Your task to perform on an android device: install app "Microsoft Excel" Image 0: 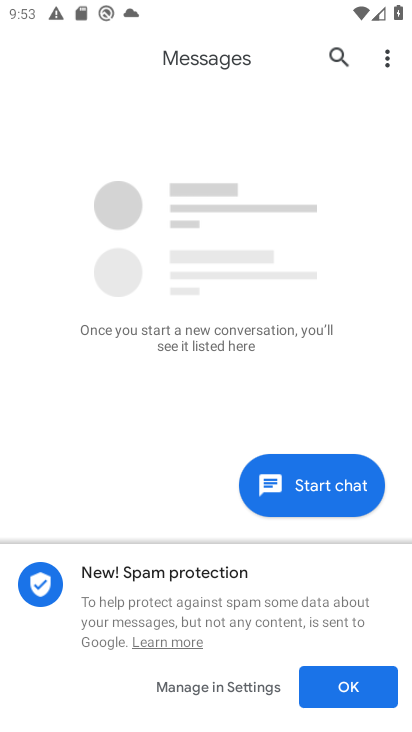
Step 0: press home button
Your task to perform on an android device: install app "Microsoft Excel" Image 1: 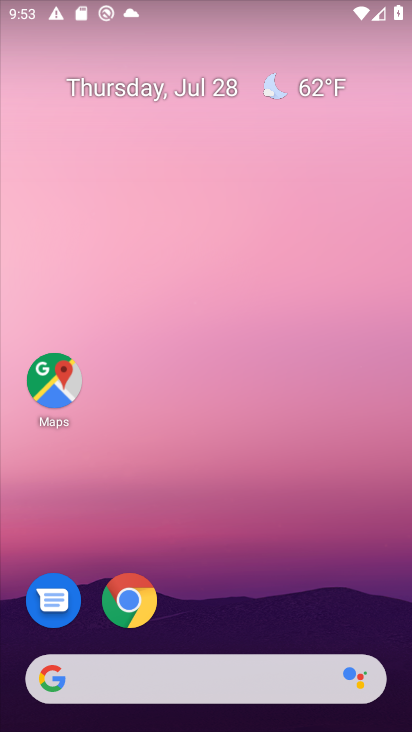
Step 1: drag from (218, 636) to (263, 11)
Your task to perform on an android device: install app "Microsoft Excel" Image 2: 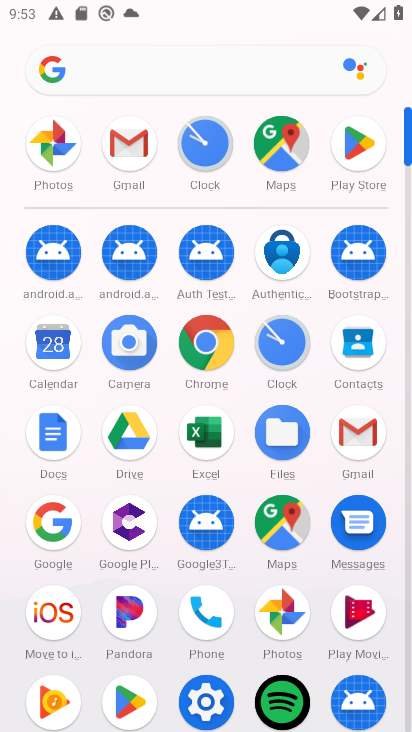
Step 2: click (353, 140)
Your task to perform on an android device: install app "Microsoft Excel" Image 3: 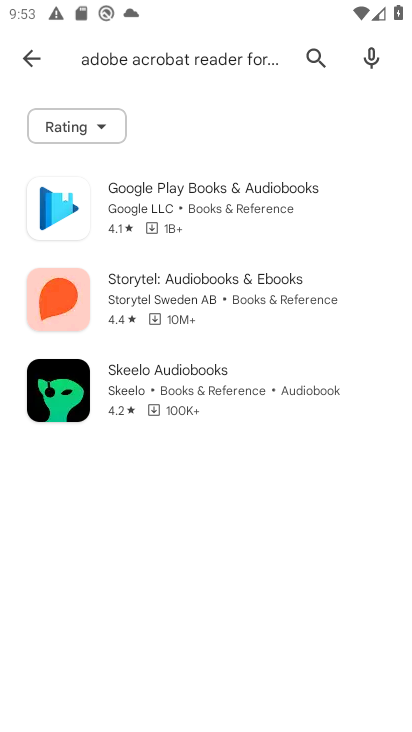
Step 3: click (324, 54)
Your task to perform on an android device: install app "Microsoft Excel" Image 4: 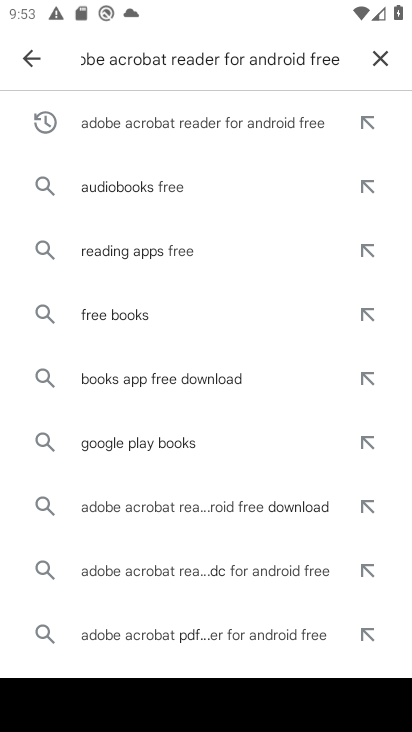
Step 4: click (378, 66)
Your task to perform on an android device: install app "Microsoft Excel" Image 5: 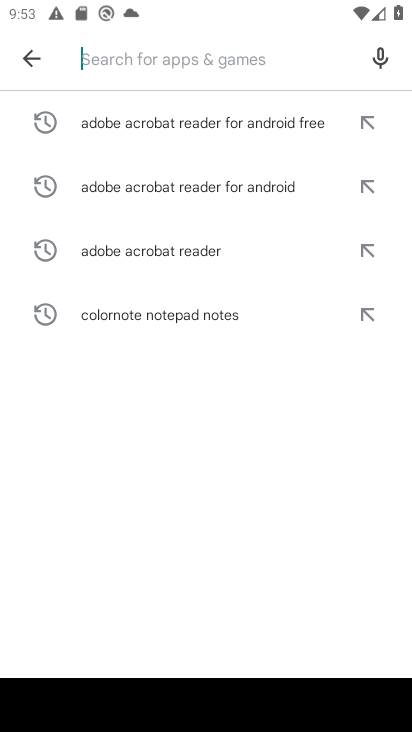
Step 5: click (287, 60)
Your task to perform on an android device: install app "Microsoft Excel" Image 6: 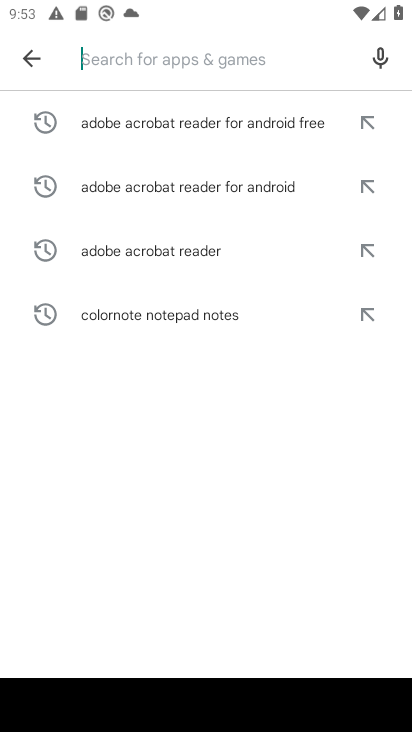
Step 6: type "Microsoft Excel"
Your task to perform on an android device: install app "Microsoft Excel" Image 7: 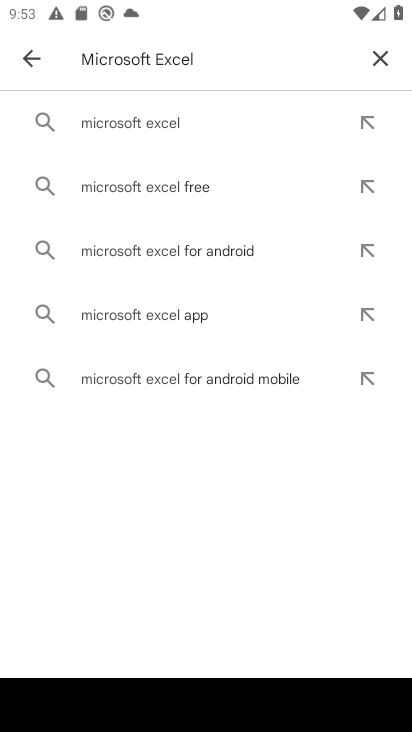
Step 7: click (151, 126)
Your task to perform on an android device: install app "Microsoft Excel" Image 8: 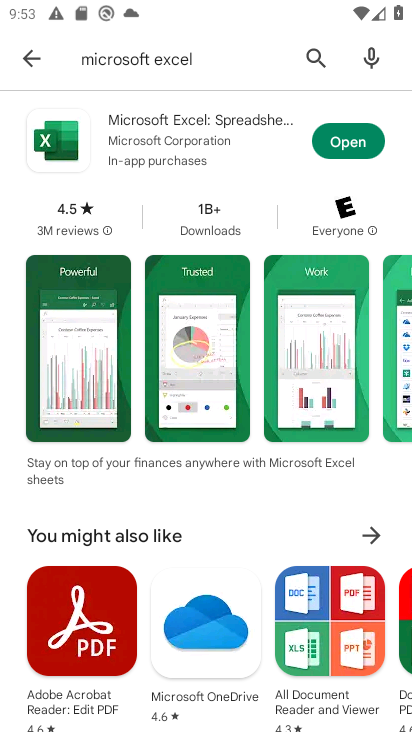
Step 8: task complete